Your task to perform on an android device: search for starred emails in the gmail app Image 0: 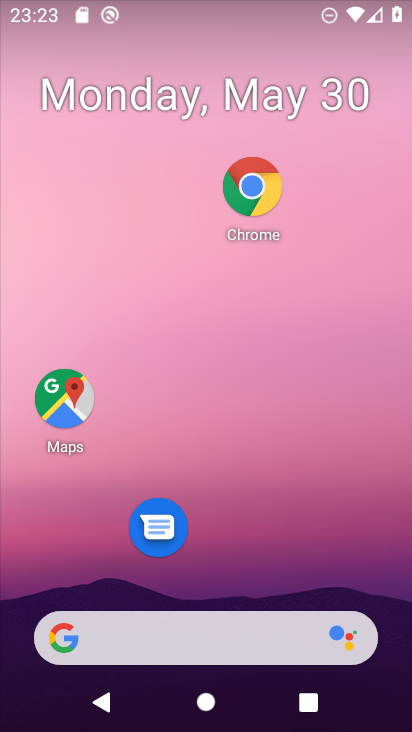
Step 0: drag from (261, 584) to (257, 271)
Your task to perform on an android device: search for starred emails in the gmail app Image 1: 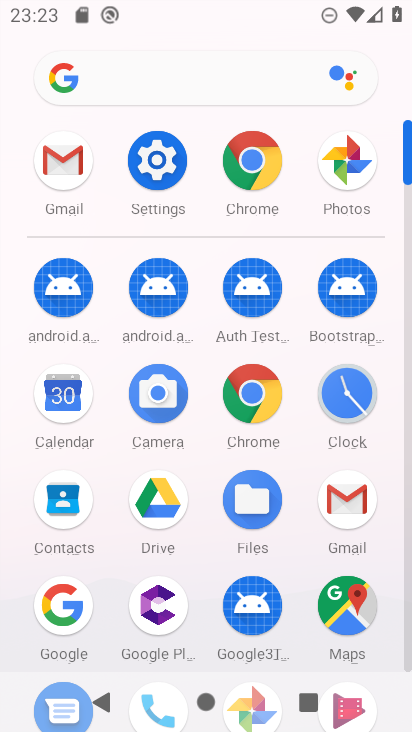
Step 1: click (334, 480)
Your task to perform on an android device: search for starred emails in the gmail app Image 2: 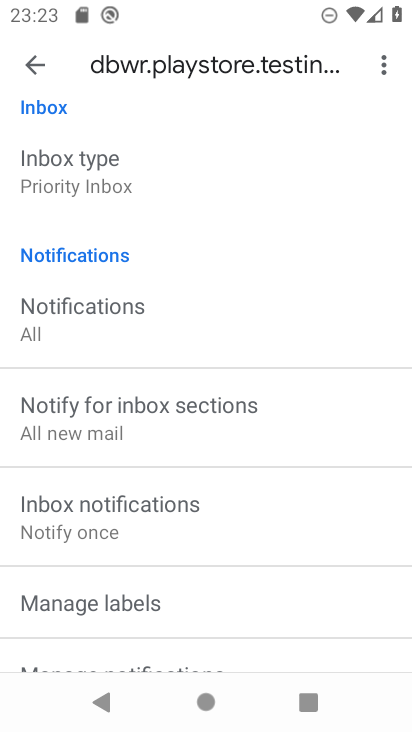
Step 2: click (28, 63)
Your task to perform on an android device: search for starred emails in the gmail app Image 3: 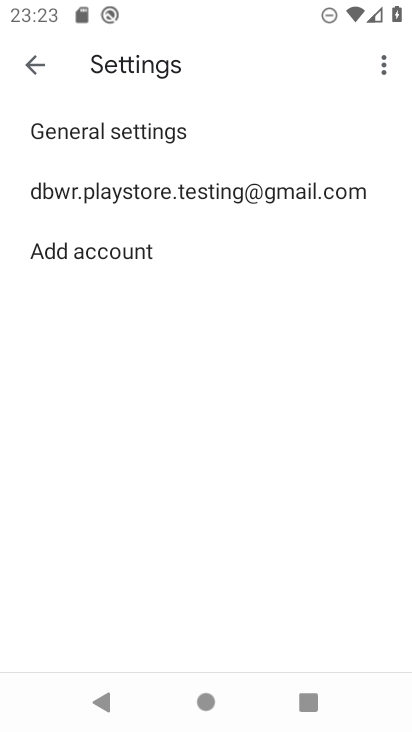
Step 3: click (28, 63)
Your task to perform on an android device: search for starred emails in the gmail app Image 4: 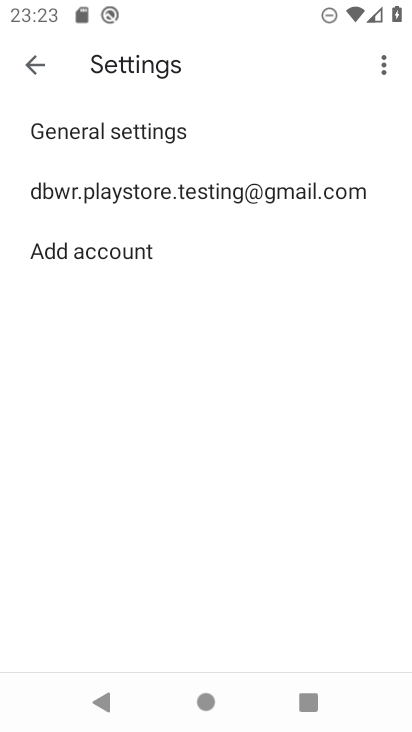
Step 4: click (34, 85)
Your task to perform on an android device: search for starred emails in the gmail app Image 5: 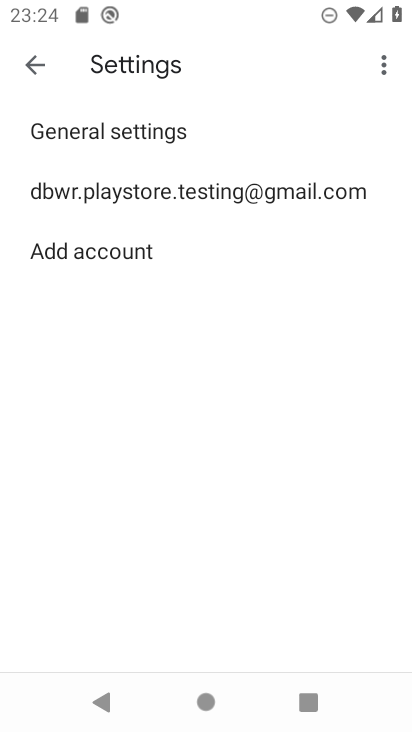
Step 5: click (41, 59)
Your task to perform on an android device: search for starred emails in the gmail app Image 6: 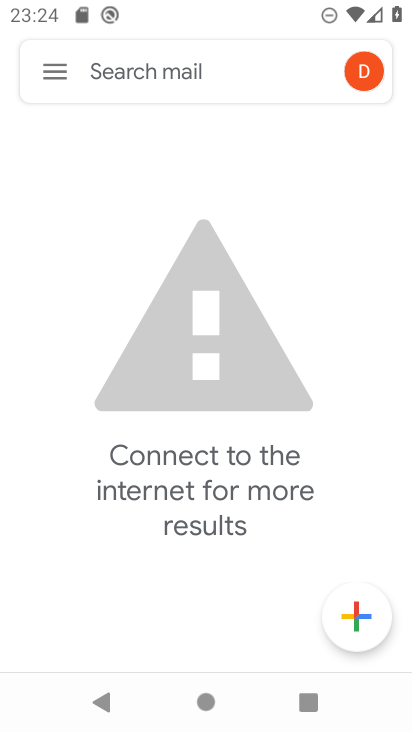
Step 6: click (51, 69)
Your task to perform on an android device: search for starred emails in the gmail app Image 7: 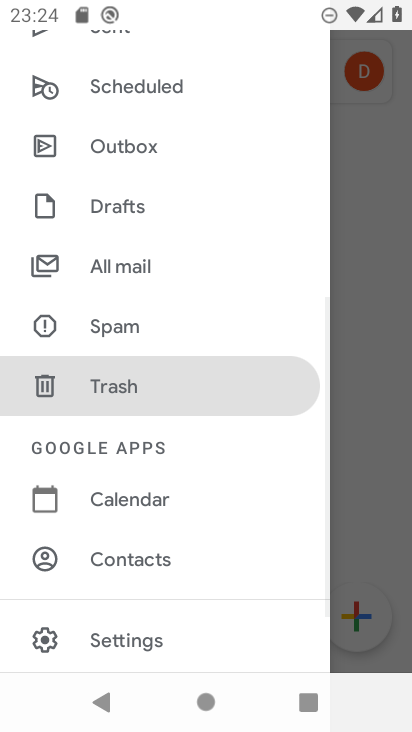
Step 7: drag from (188, 254) to (182, 562)
Your task to perform on an android device: search for starred emails in the gmail app Image 8: 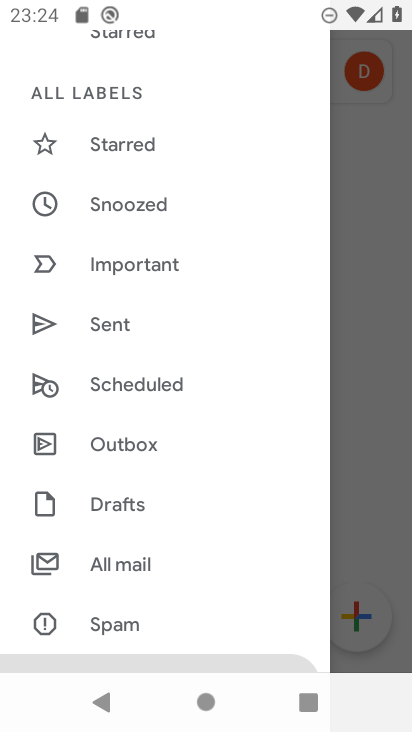
Step 8: drag from (167, 278) to (164, 500)
Your task to perform on an android device: search for starred emails in the gmail app Image 9: 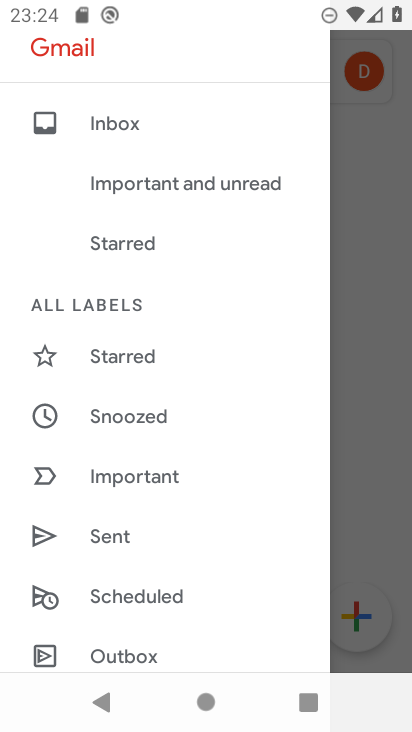
Step 9: click (134, 349)
Your task to perform on an android device: search for starred emails in the gmail app Image 10: 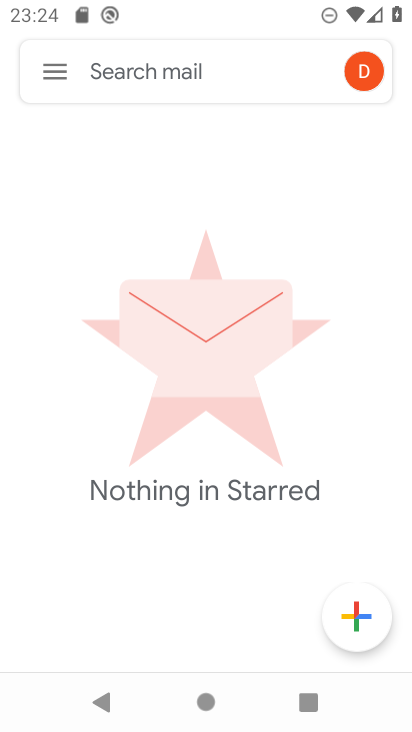
Step 10: click (40, 69)
Your task to perform on an android device: search for starred emails in the gmail app Image 11: 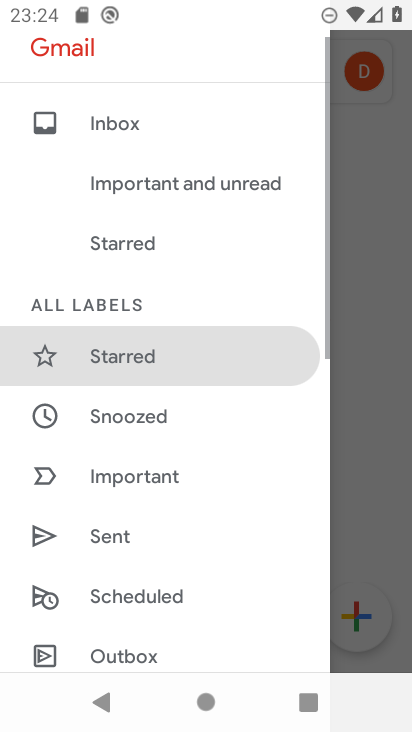
Step 11: task complete